Your task to perform on an android device: toggle notification dots Image 0: 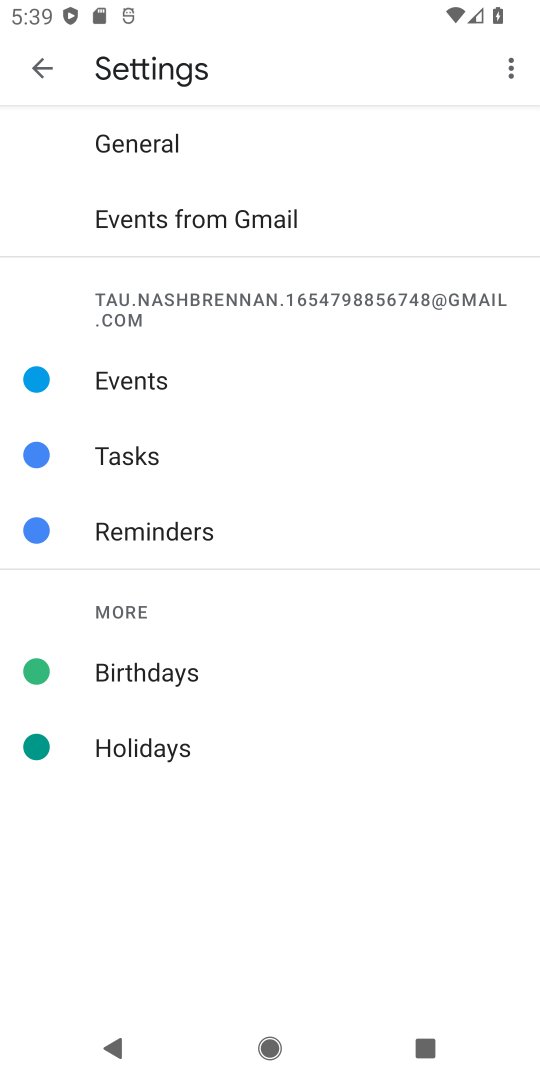
Step 0: press back button
Your task to perform on an android device: toggle notification dots Image 1: 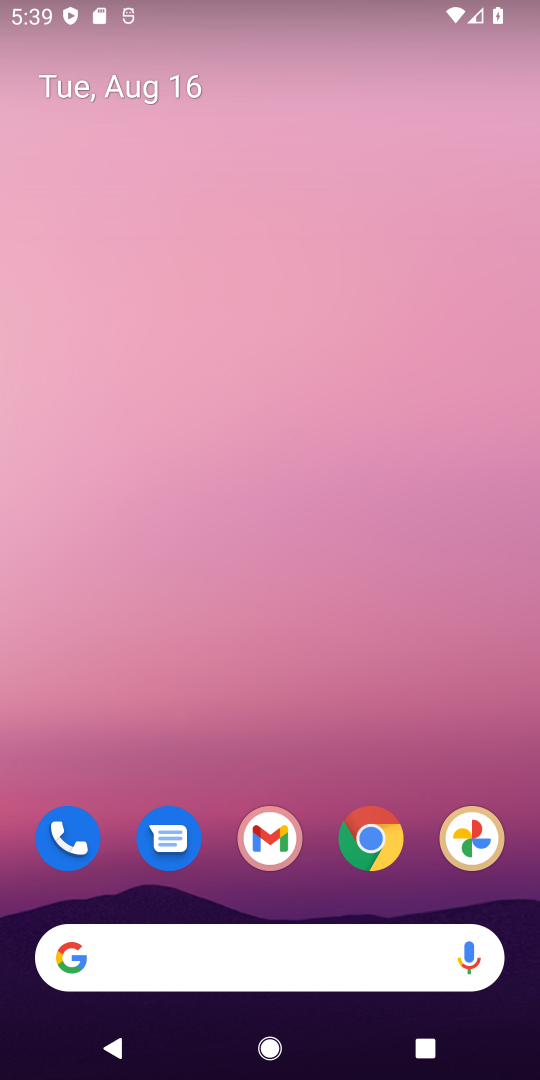
Step 1: drag from (358, 664) to (367, 230)
Your task to perform on an android device: toggle notification dots Image 2: 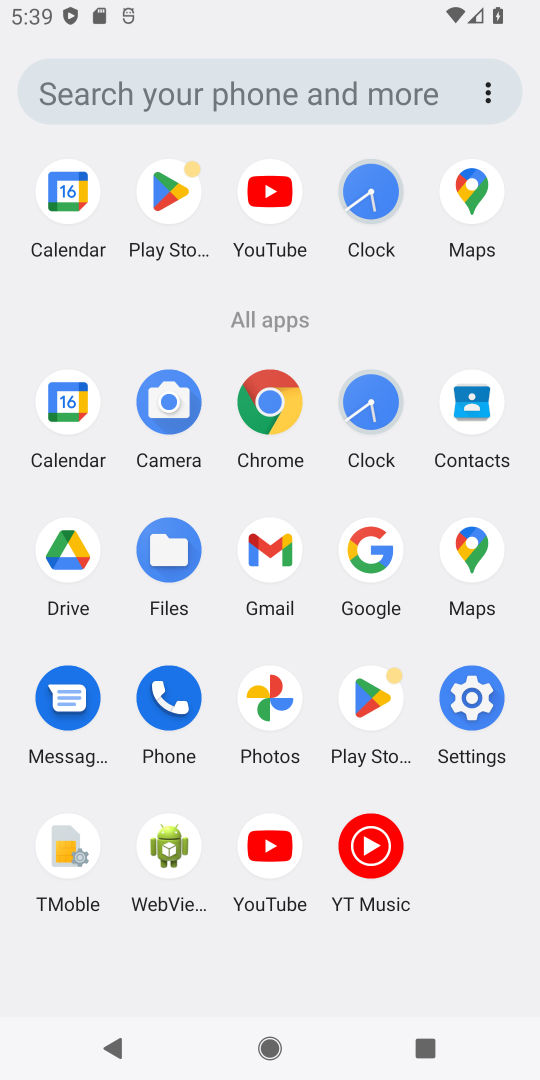
Step 2: click (459, 698)
Your task to perform on an android device: toggle notification dots Image 3: 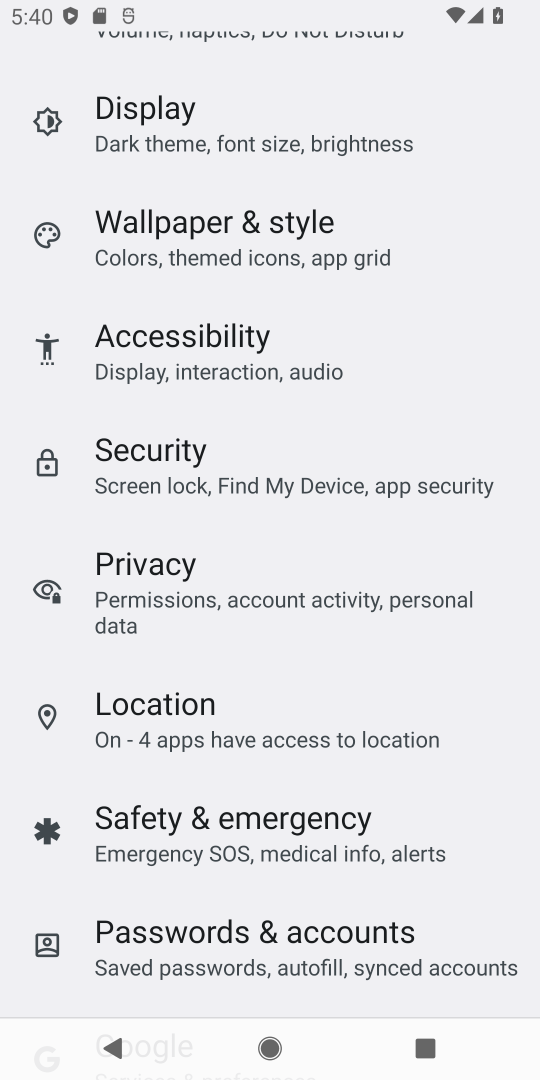
Step 3: drag from (443, 254) to (300, 1016)
Your task to perform on an android device: toggle notification dots Image 4: 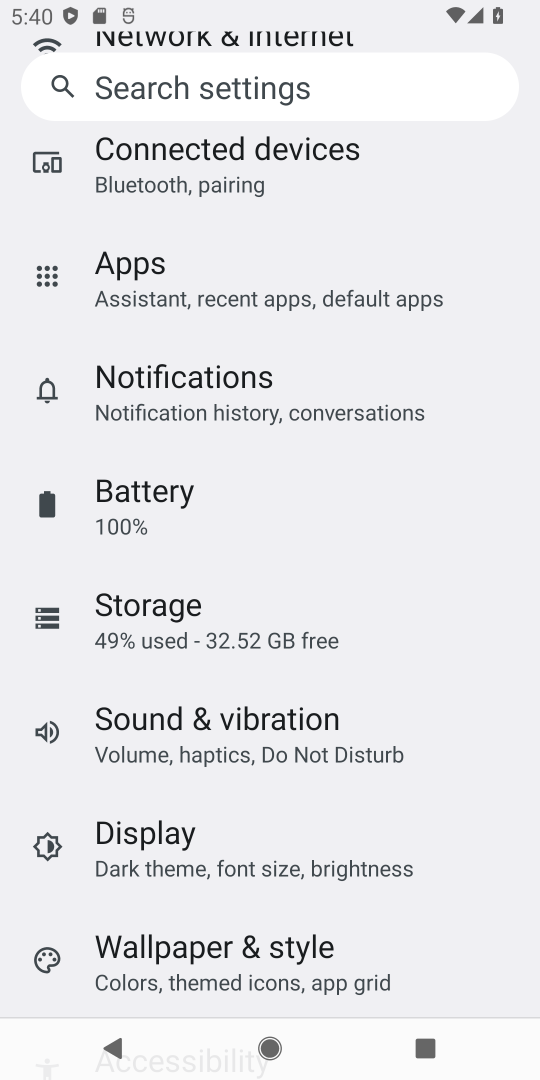
Step 4: click (258, 402)
Your task to perform on an android device: toggle notification dots Image 5: 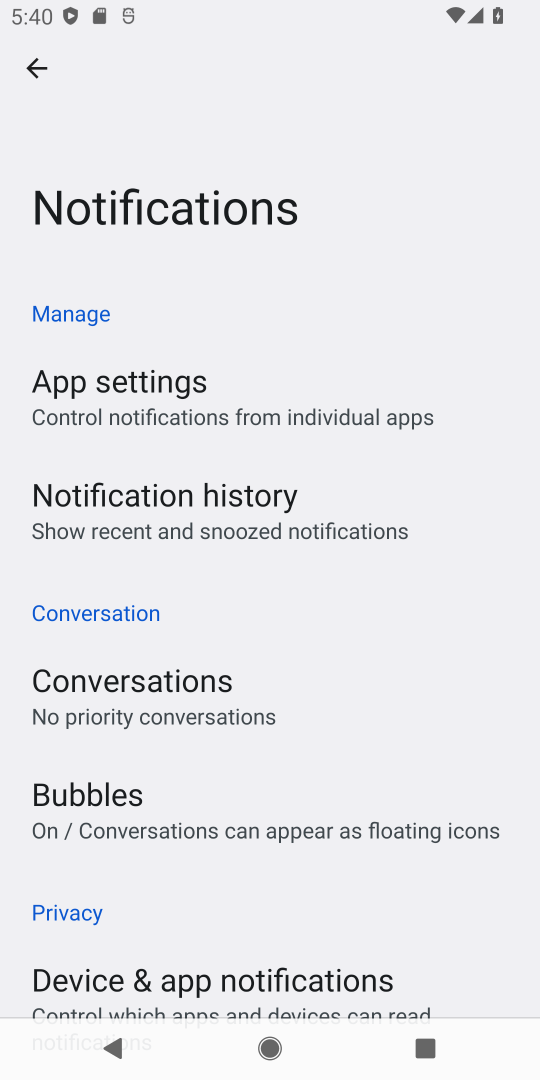
Step 5: drag from (307, 951) to (377, 175)
Your task to perform on an android device: toggle notification dots Image 6: 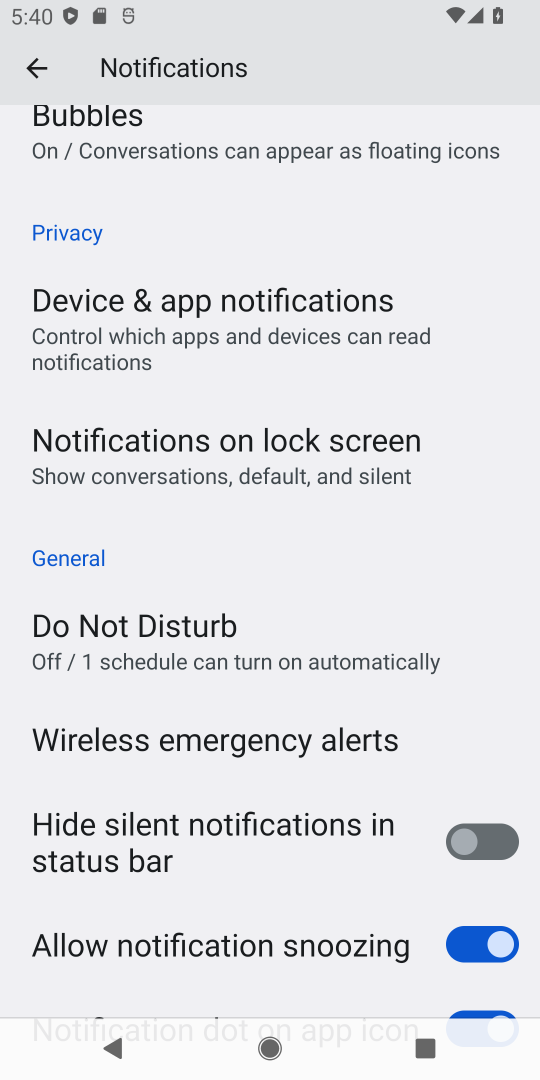
Step 6: drag from (258, 870) to (324, 431)
Your task to perform on an android device: toggle notification dots Image 7: 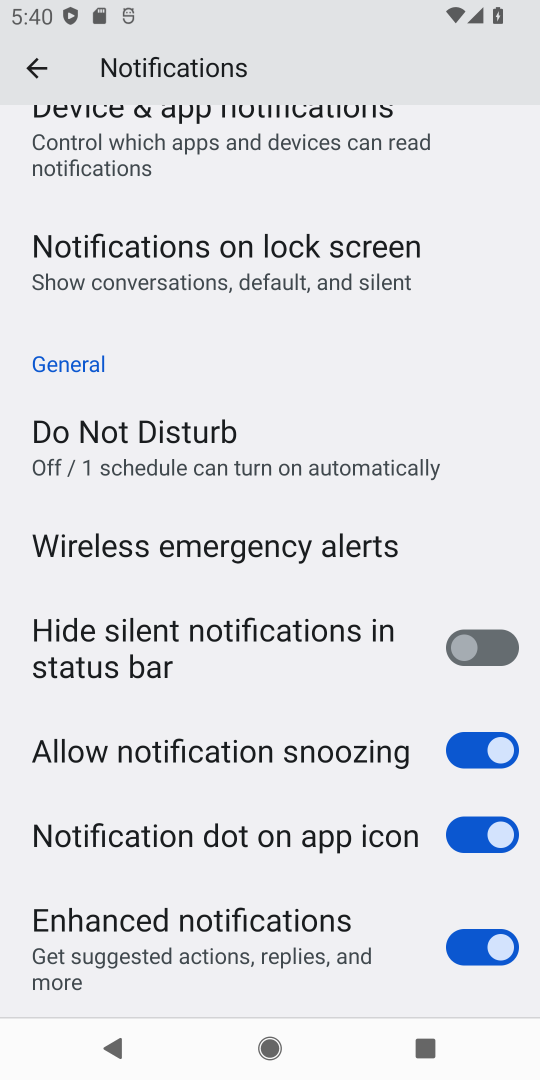
Step 7: click (478, 837)
Your task to perform on an android device: toggle notification dots Image 8: 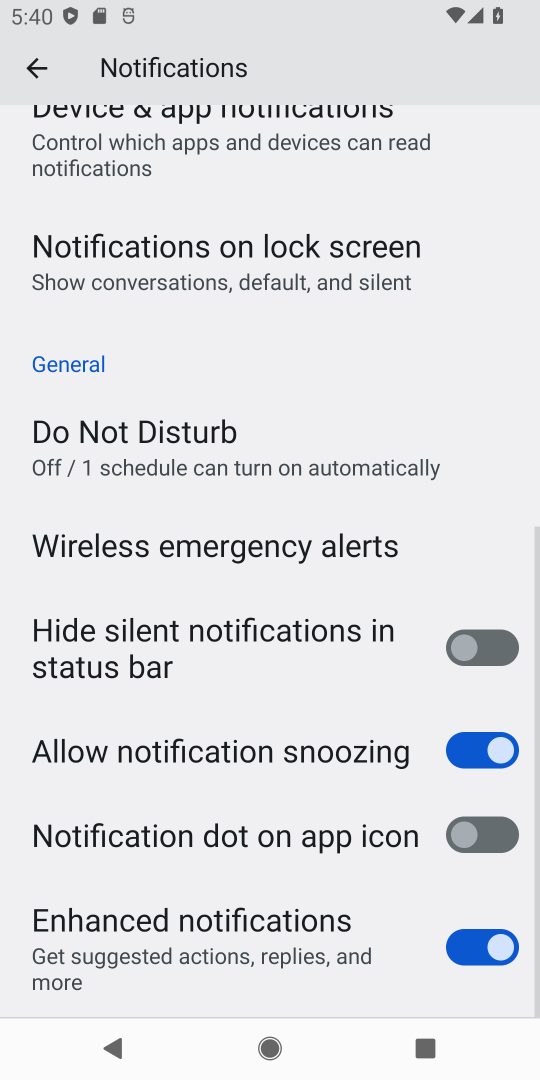
Step 8: task complete